Your task to perform on an android device: toggle airplane mode Image 0: 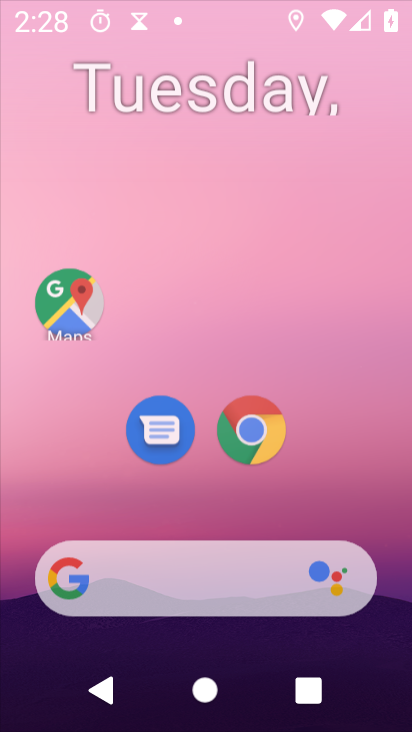
Step 0: click (315, 5)
Your task to perform on an android device: toggle airplane mode Image 1: 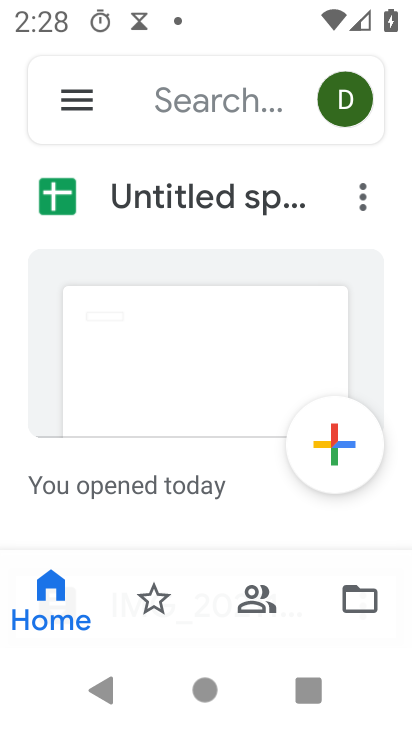
Step 1: press home button
Your task to perform on an android device: toggle airplane mode Image 2: 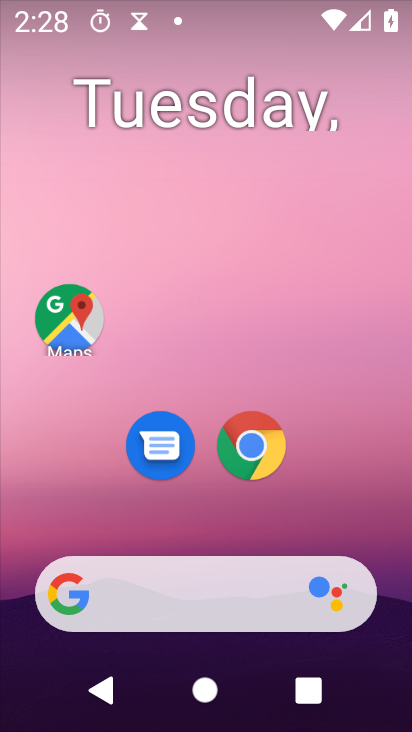
Step 2: drag from (261, 9) to (217, 572)
Your task to perform on an android device: toggle airplane mode Image 3: 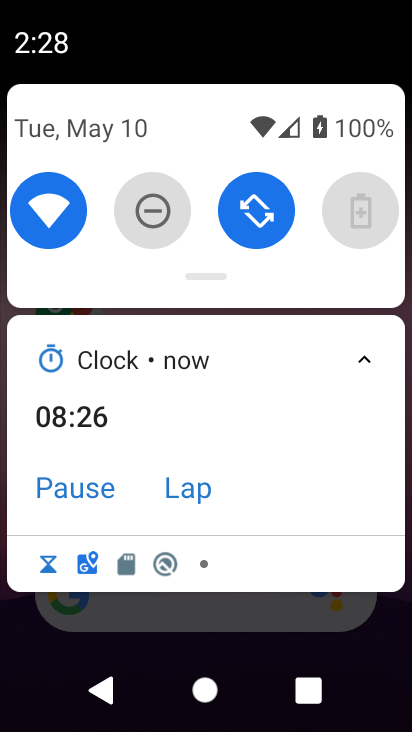
Step 3: drag from (259, 294) to (234, 611)
Your task to perform on an android device: toggle airplane mode Image 4: 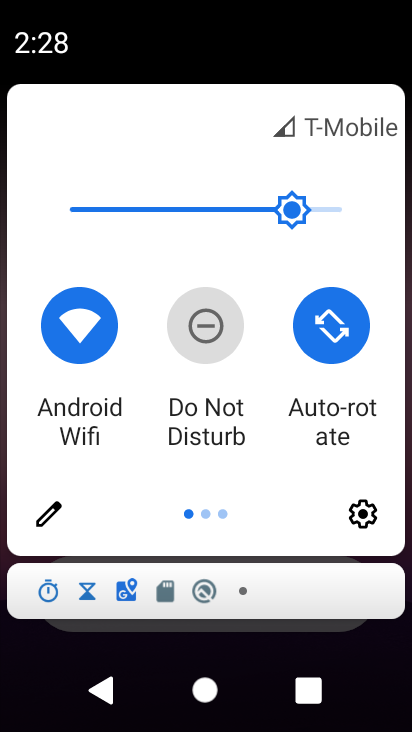
Step 4: drag from (346, 444) to (32, 436)
Your task to perform on an android device: toggle airplane mode Image 5: 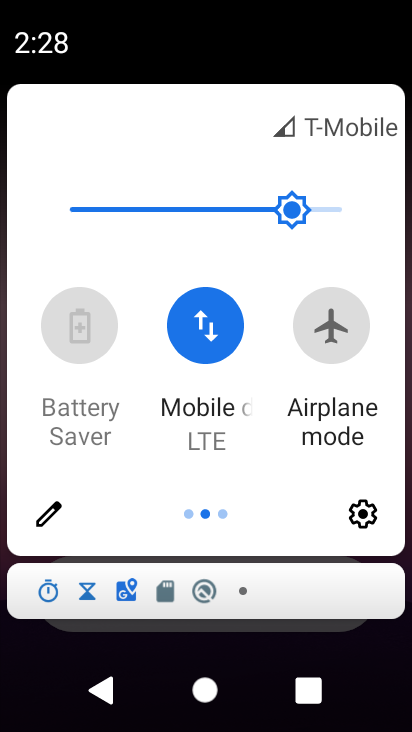
Step 5: click (344, 325)
Your task to perform on an android device: toggle airplane mode Image 6: 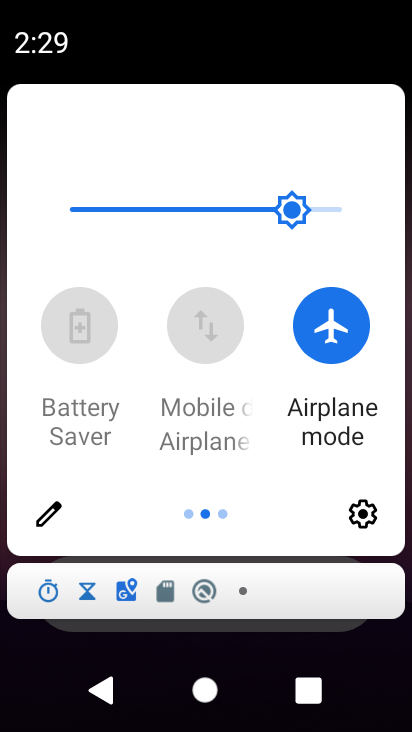
Step 6: task complete